Your task to perform on an android device: toggle priority inbox in the gmail app Image 0: 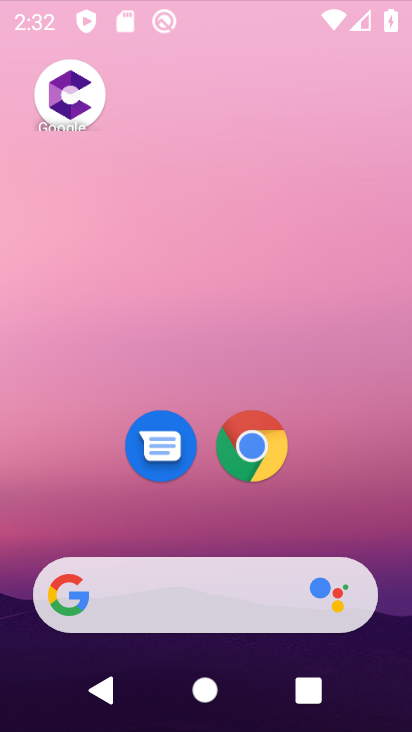
Step 0: click (370, 66)
Your task to perform on an android device: toggle priority inbox in the gmail app Image 1: 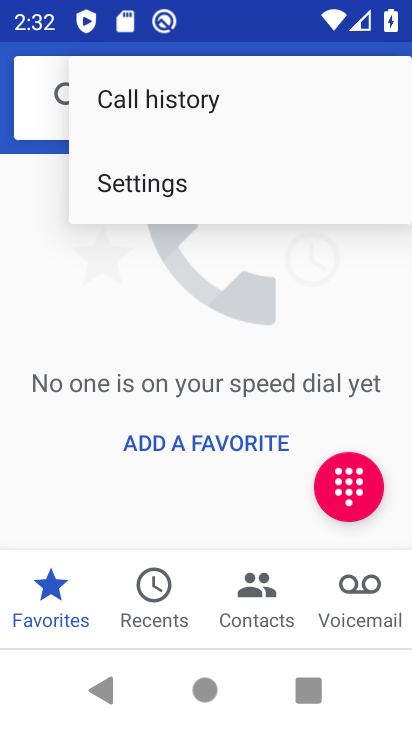
Step 1: press home button
Your task to perform on an android device: toggle priority inbox in the gmail app Image 2: 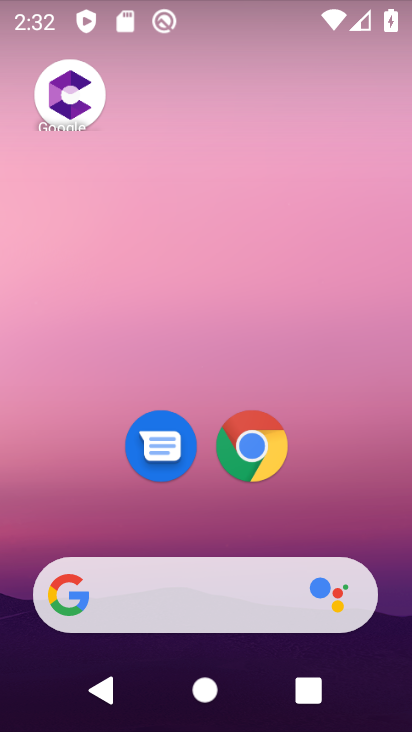
Step 2: drag from (226, 647) to (373, 148)
Your task to perform on an android device: toggle priority inbox in the gmail app Image 3: 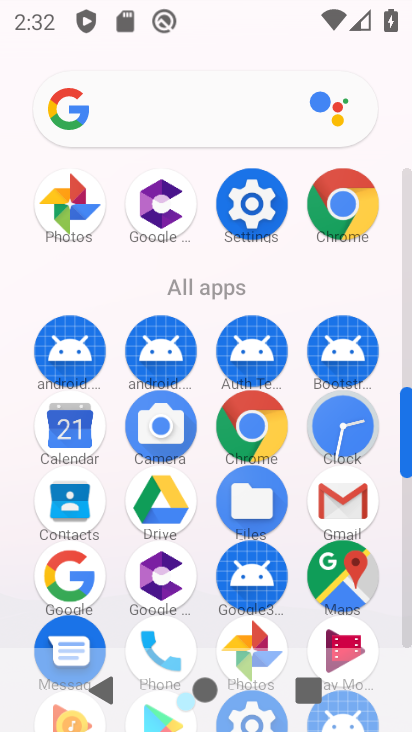
Step 3: click (341, 494)
Your task to perform on an android device: toggle priority inbox in the gmail app Image 4: 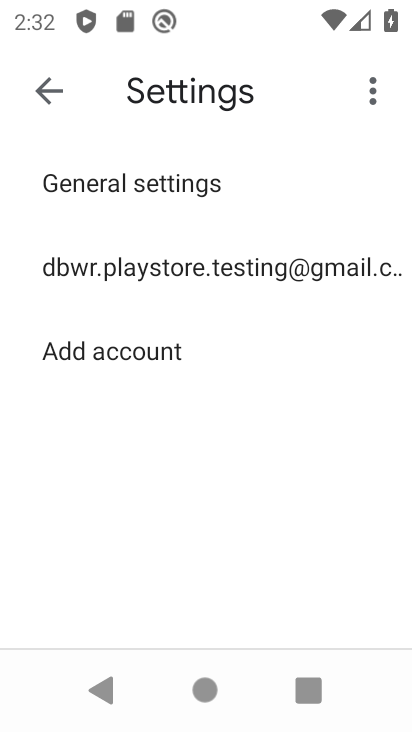
Step 4: click (253, 264)
Your task to perform on an android device: toggle priority inbox in the gmail app Image 5: 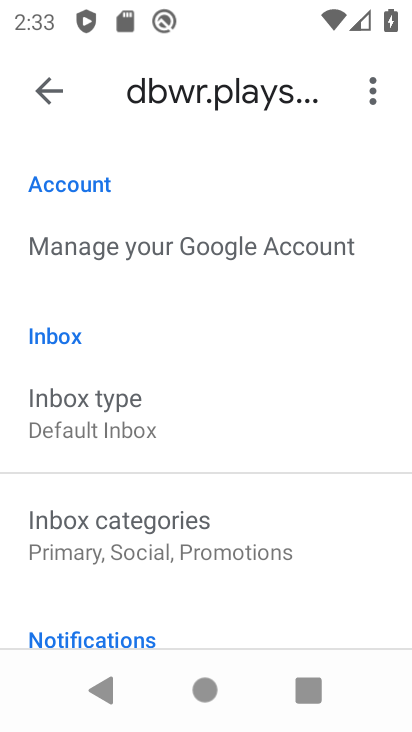
Step 5: click (134, 392)
Your task to perform on an android device: toggle priority inbox in the gmail app Image 6: 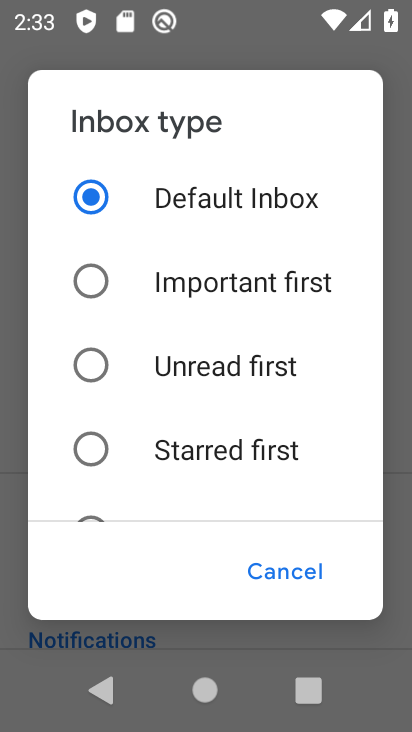
Step 6: drag from (168, 453) to (236, 260)
Your task to perform on an android device: toggle priority inbox in the gmail app Image 7: 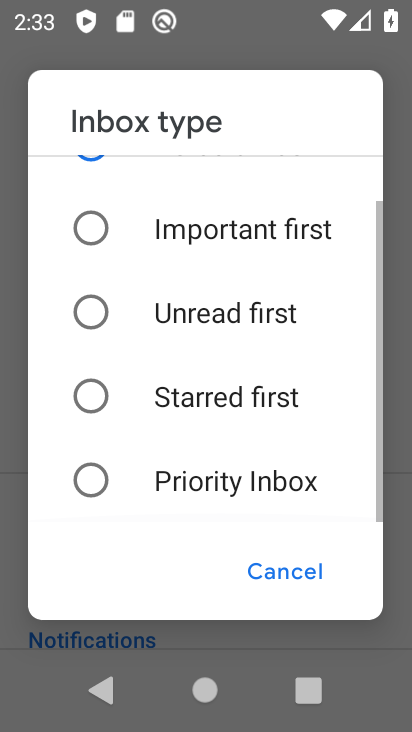
Step 7: click (173, 481)
Your task to perform on an android device: toggle priority inbox in the gmail app Image 8: 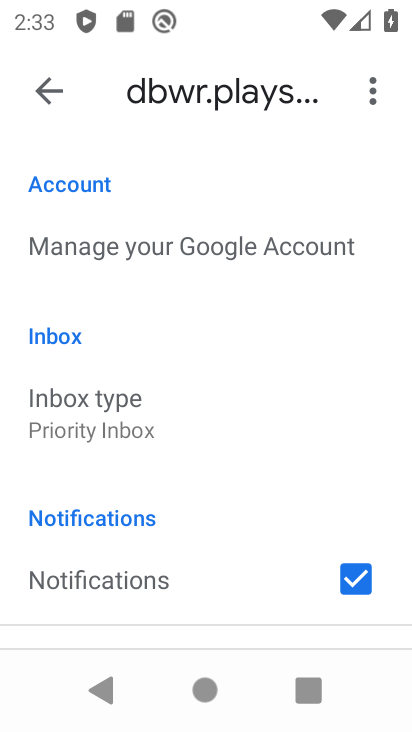
Step 8: task complete